Your task to perform on an android device: Open Amazon Image 0: 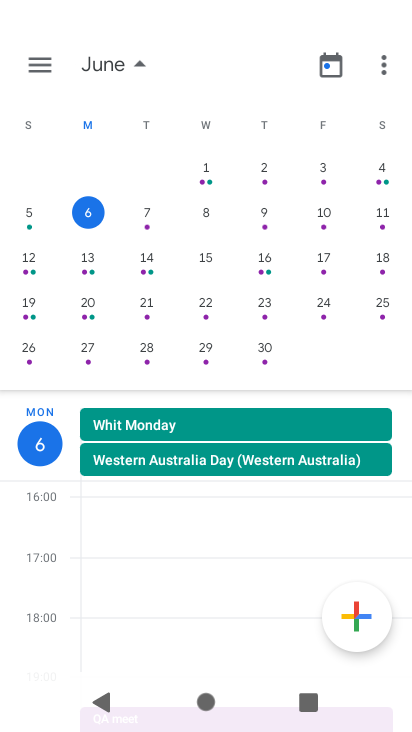
Step 0: press home button
Your task to perform on an android device: Open Amazon Image 1: 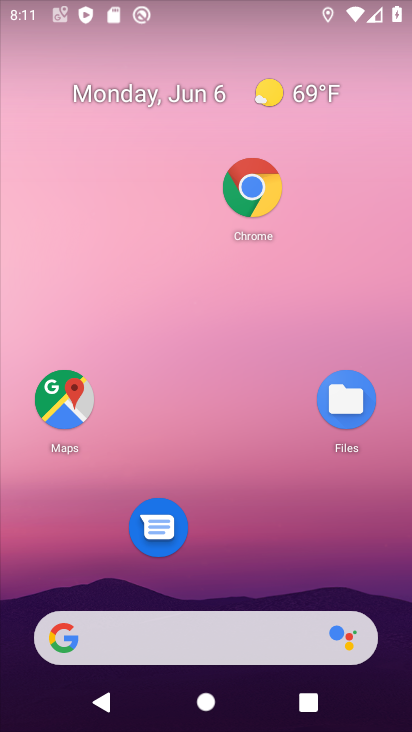
Step 1: click (251, 189)
Your task to perform on an android device: Open Amazon Image 2: 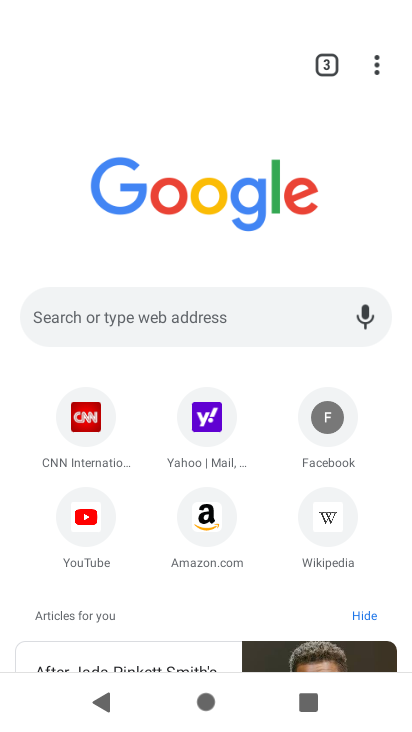
Step 2: click (209, 525)
Your task to perform on an android device: Open Amazon Image 3: 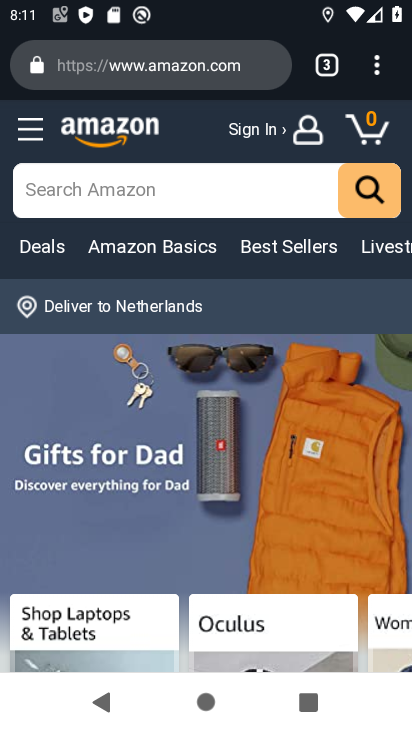
Step 3: task complete